Your task to perform on an android device: What's on my calendar tomorrow? Image 0: 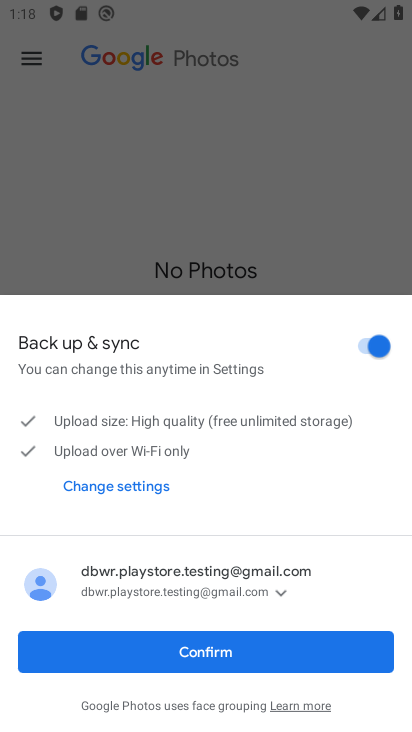
Step 0: press home button
Your task to perform on an android device: What's on my calendar tomorrow? Image 1: 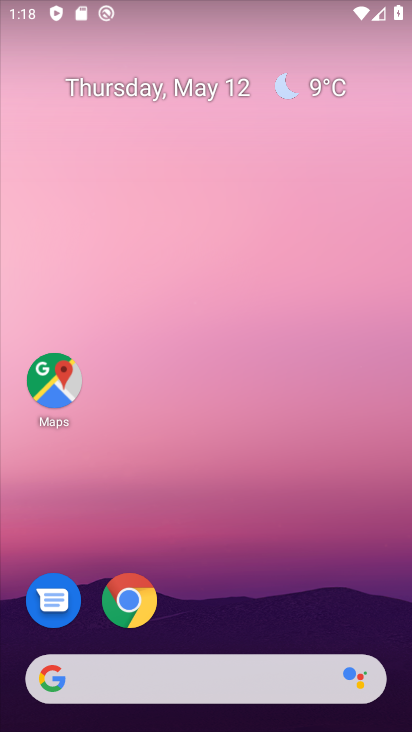
Step 1: drag from (309, 568) to (251, 0)
Your task to perform on an android device: What's on my calendar tomorrow? Image 2: 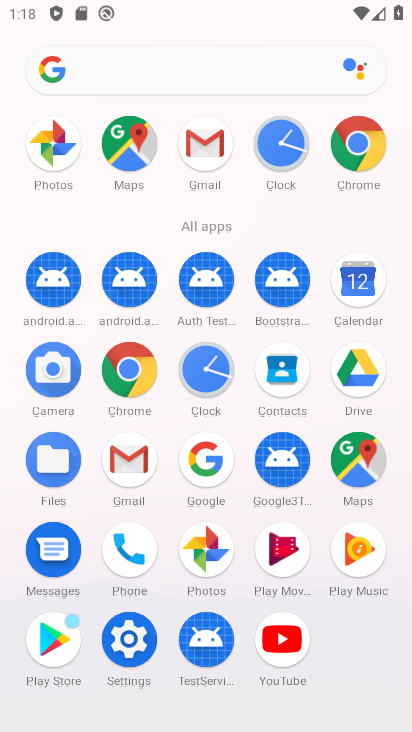
Step 2: click (352, 277)
Your task to perform on an android device: What's on my calendar tomorrow? Image 3: 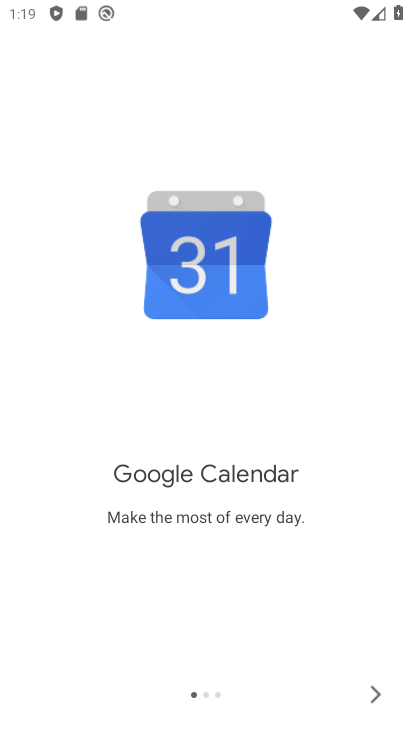
Step 3: click (367, 705)
Your task to perform on an android device: What's on my calendar tomorrow? Image 4: 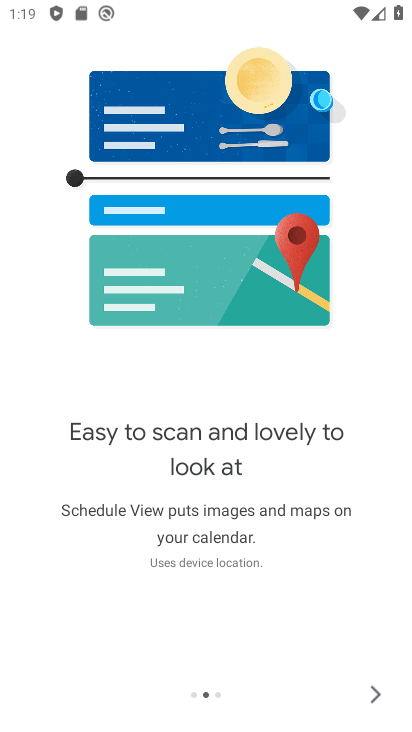
Step 4: click (361, 691)
Your task to perform on an android device: What's on my calendar tomorrow? Image 5: 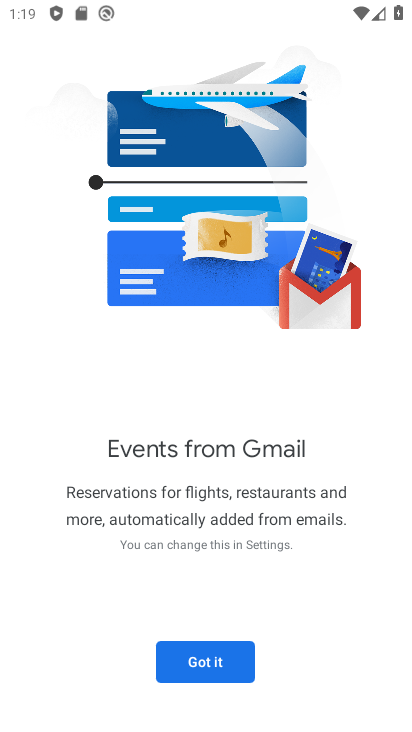
Step 5: click (247, 674)
Your task to perform on an android device: What's on my calendar tomorrow? Image 6: 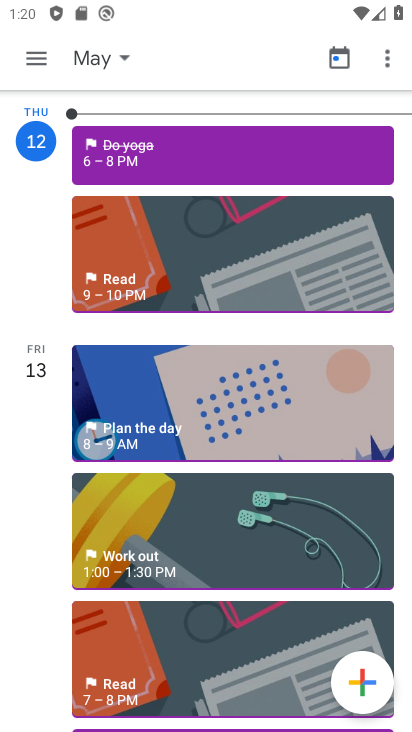
Step 6: click (122, 54)
Your task to perform on an android device: What's on my calendar tomorrow? Image 7: 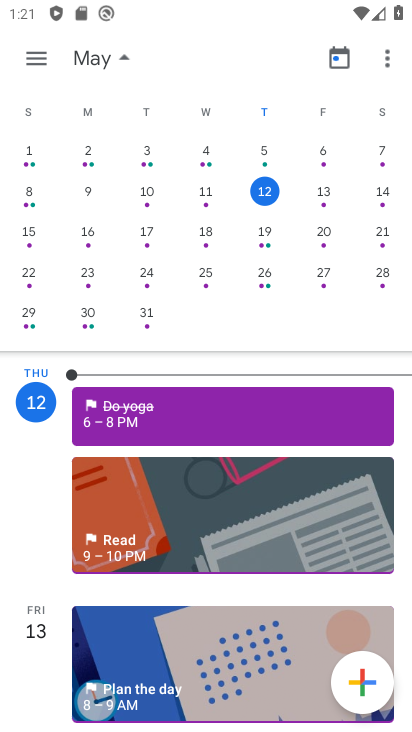
Step 7: click (333, 183)
Your task to perform on an android device: What's on my calendar tomorrow? Image 8: 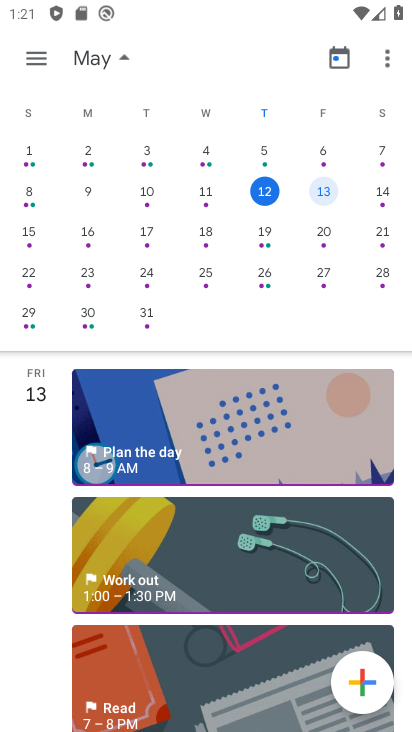
Step 8: task complete